Your task to perform on an android device: add a label to a message in the gmail app Image 0: 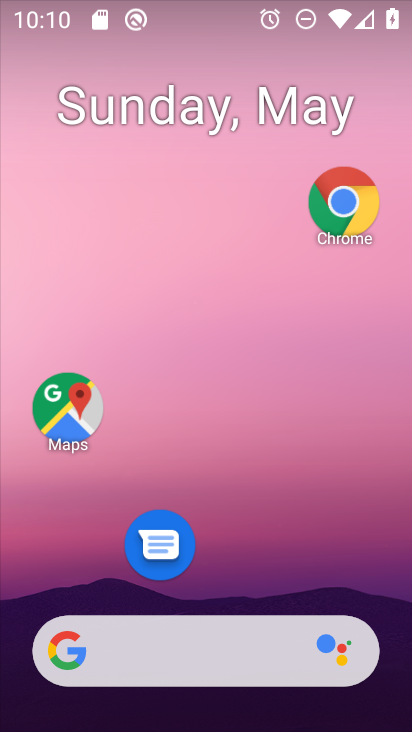
Step 0: drag from (287, 588) to (246, 70)
Your task to perform on an android device: add a label to a message in the gmail app Image 1: 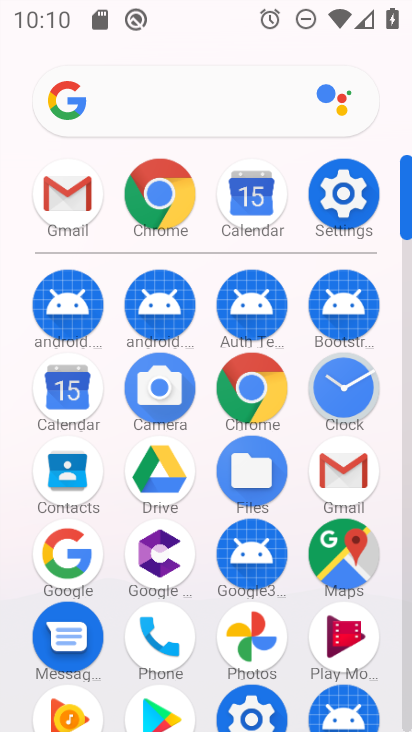
Step 1: click (343, 465)
Your task to perform on an android device: add a label to a message in the gmail app Image 2: 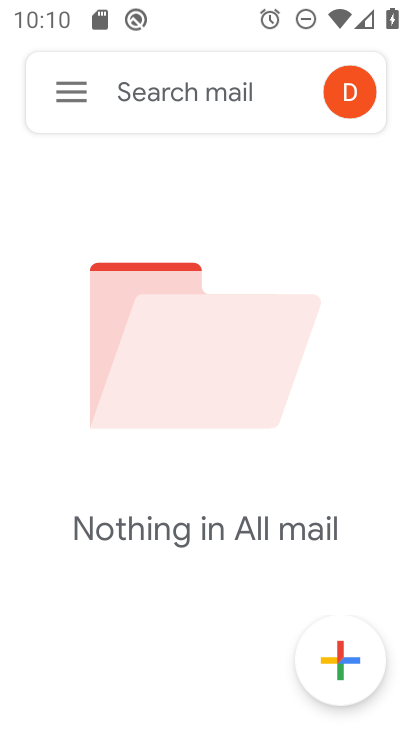
Step 2: click (56, 84)
Your task to perform on an android device: add a label to a message in the gmail app Image 3: 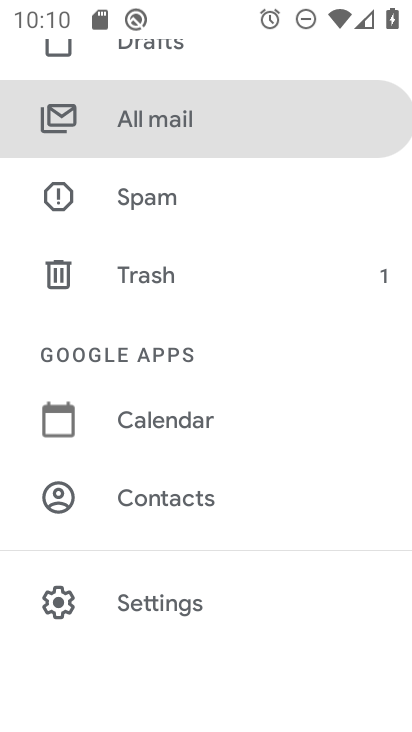
Step 3: click (252, 137)
Your task to perform on an android device: add a label to a message in the gmail app Image 4: 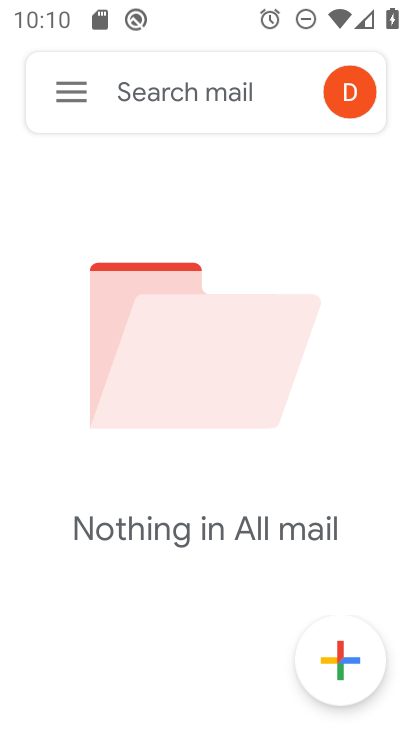
Step 4: task complete